Your task to perform on an android device: change notification settings in the gmail app Image 0: 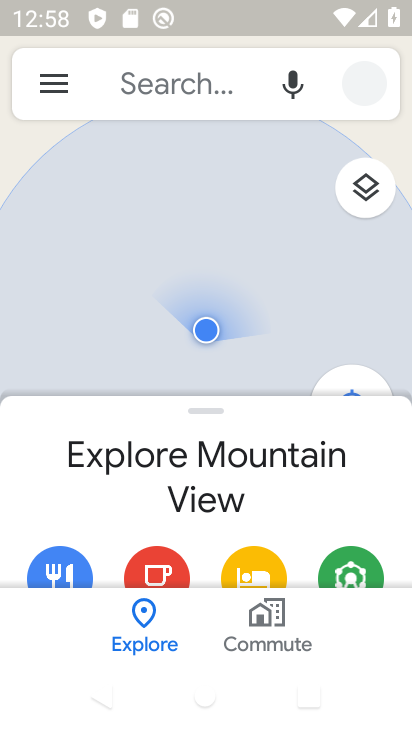
Step 0: press home button
Your task to perform on an android device: change notification settings in the gmail app Image 1: 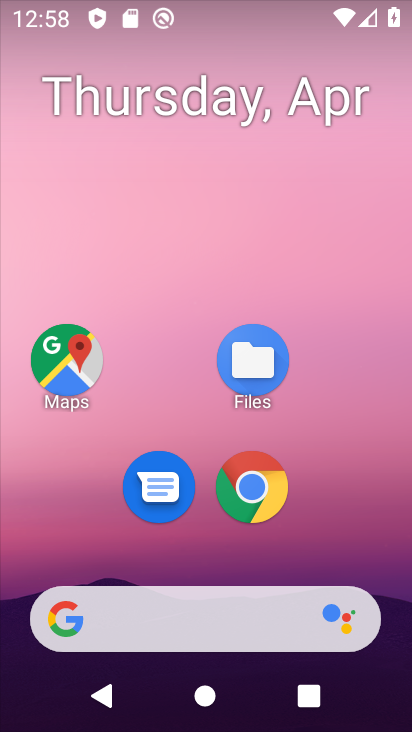
Step 1: drag from (374, 551) to (380, 159)
Your task to perform on an android device: change notification settings in the gmail app Image 2: 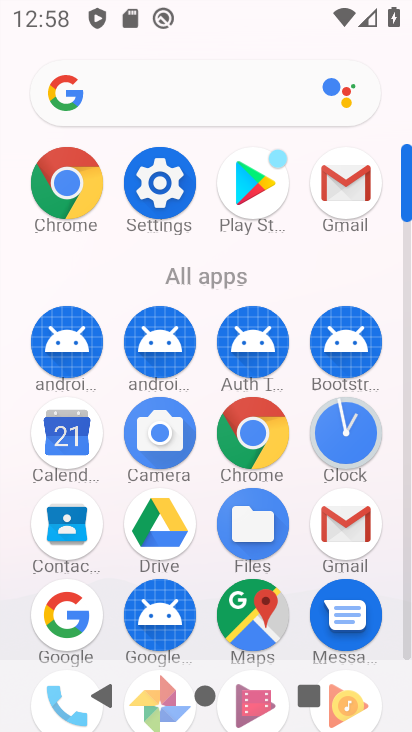
Step 2: click (339, 530)
Your task to perform on an android device: change notification settings in the gmail app Image 3: 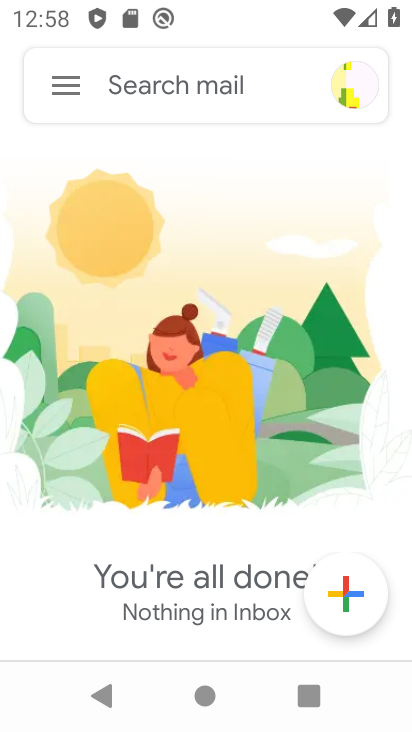
Step 3: click (76, 85)
Your task to perform on an android device: change notification settings in the gmail app Image 4: 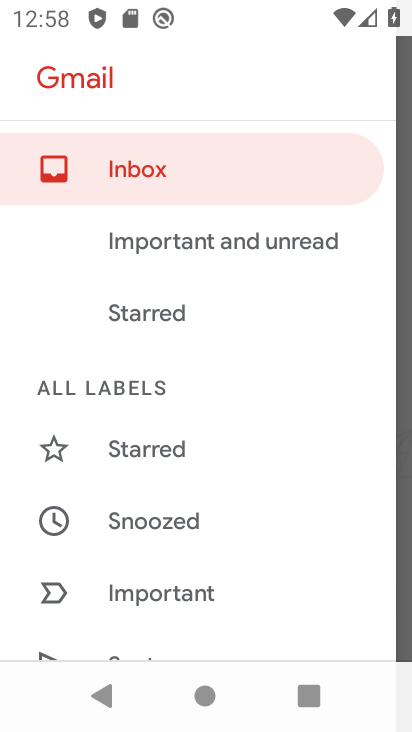
Step 4: drag from (256, 579) to (257, 366)
Your task to perform on an android device: change notification settings in the gmail app Image 5: 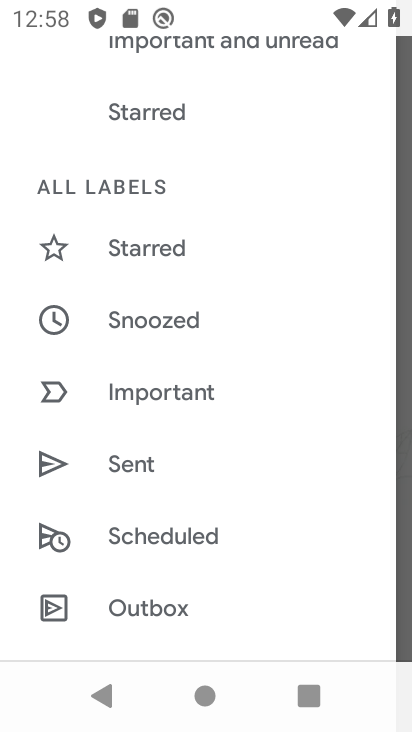
Step 5: drag from (243, 553) to (262, 288)
Your task to perform on an android device: change notification settings in the gmail app Image 6: 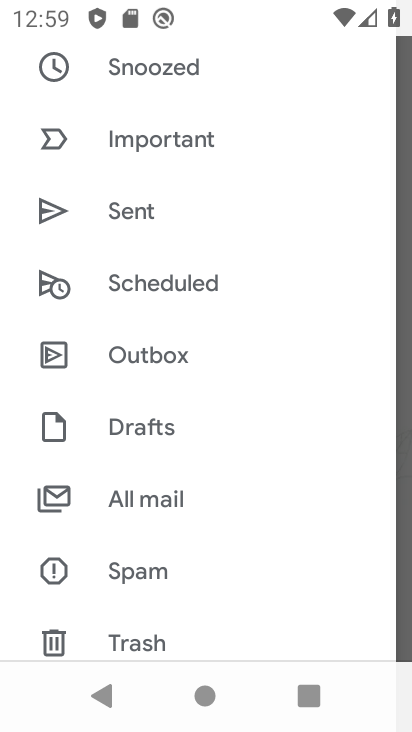
Step 6: drag from (165, 567) to (212, 304)
Your task to perform on an android device: change notification settings in the gmail app Image 7: 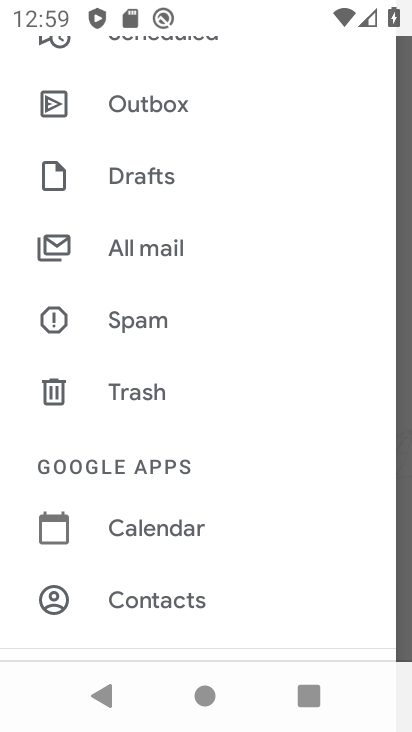
Step 7: drag from (237, 570) to (261, 345)
Your task to perform on an android device: change notification settings in the gmail app Image 8: 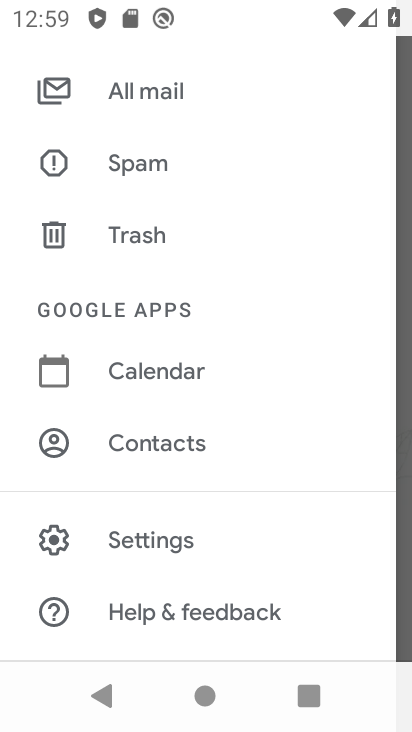
Step 8: click (148, 538)
Your task to perform on an android device: change notification settings in the gmail app Image 9: 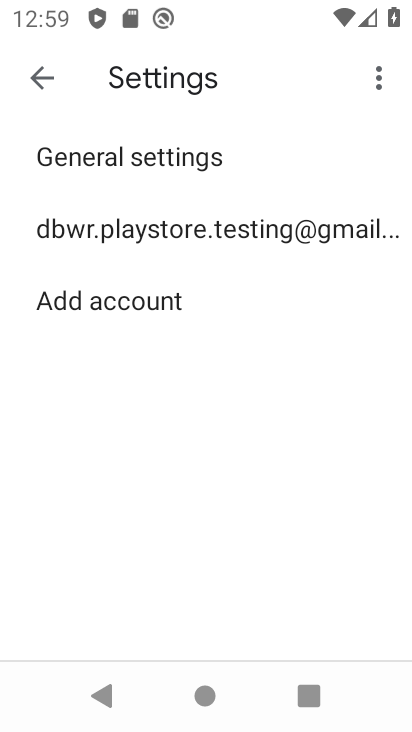
Step 9: click (228, 222)
Your task to perform on an android device: change notification settings in the gmail app Image 10: 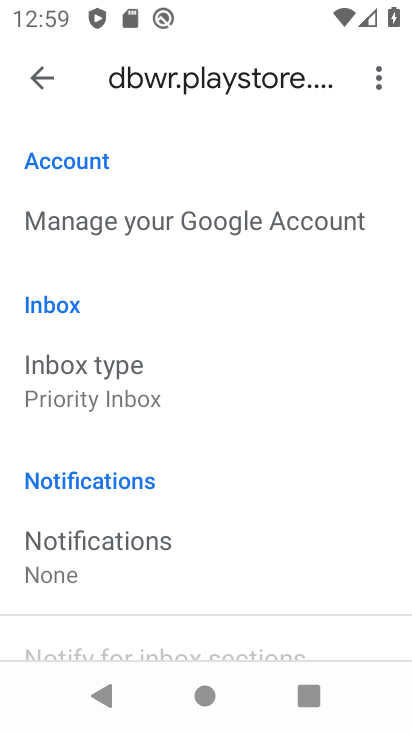
Step 10: click (113, 561)
Your task to perform on an android device: change notification settings in the gmail app Image 11: 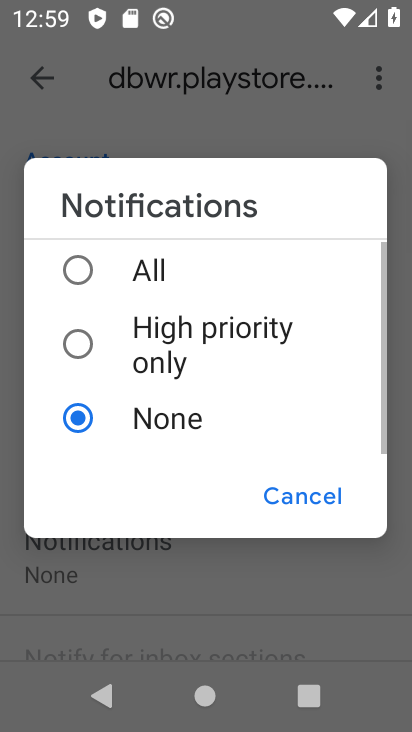
Step 11: click (160, 324)
Your task to perform on an android device: change notification settings in the gmail app Image 12: 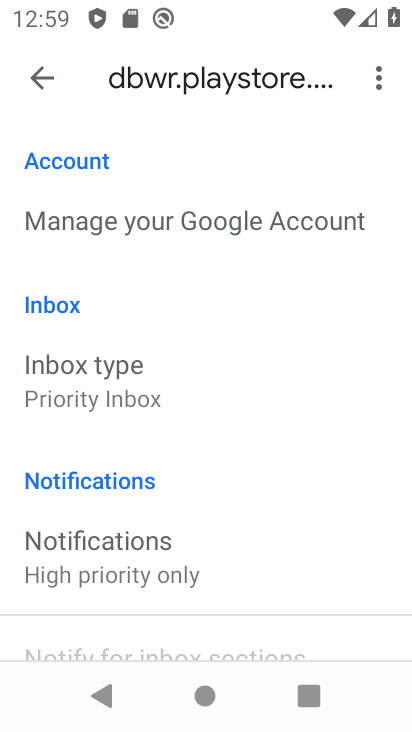
Step 12: task complete